Your task to perform on an android device: delete a single message in the gmail app Image 0: 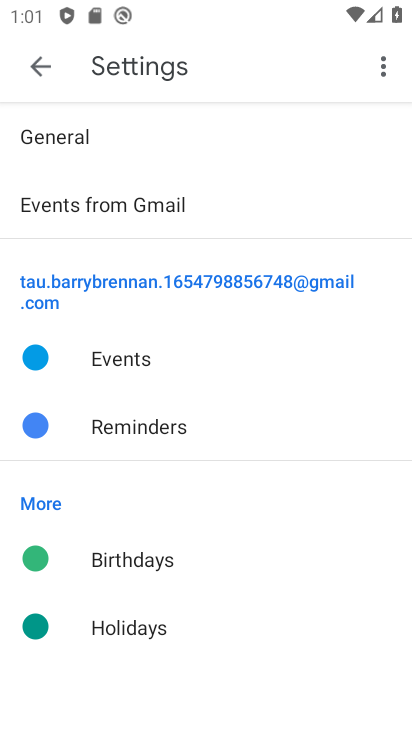
Step 0: press home button
Your task to perform on an android device: delete a single message in the gmail app Image 1: 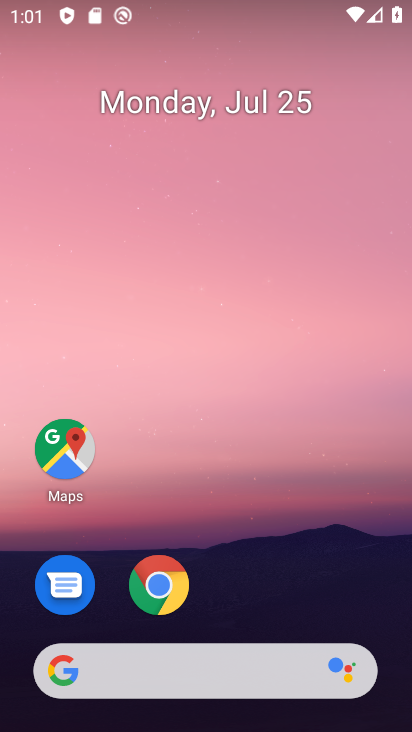
Step 1: drag from (246, 652) to (235, 158)
Your task to perform on an android device: delete a single message in the gmail app Image 2: 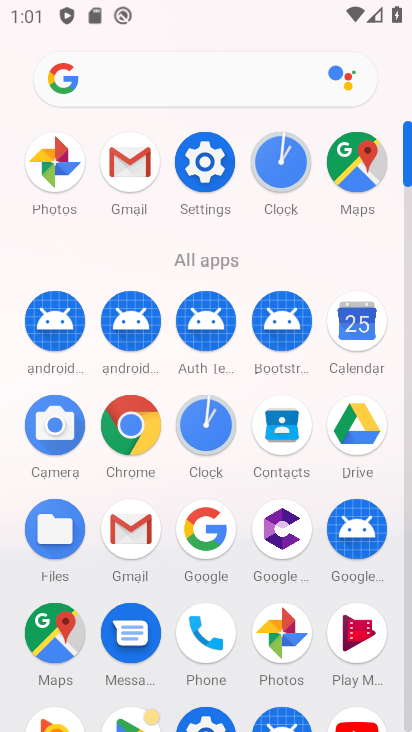
Step 2: click (143, 522)
Your task to perform on an android device: delete a single message in the gmail app Image 3: 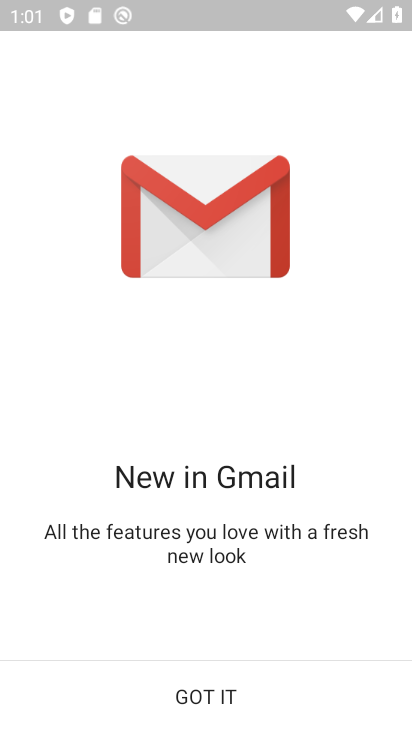
Step 3: click (234, 690)
Your task to perform on an android device: delete a single message in the gmail app Image 4: 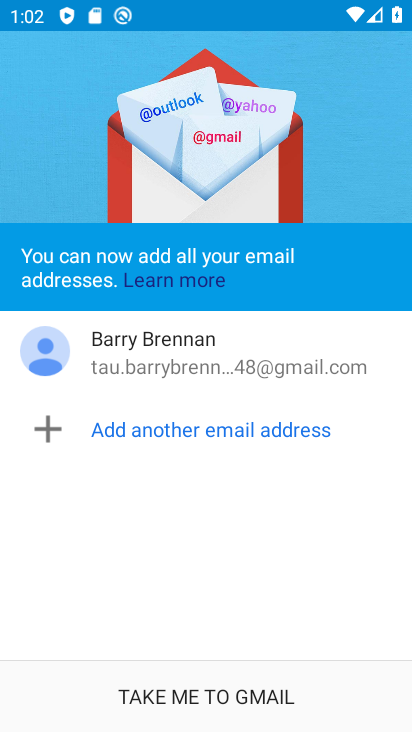
Step 4: click (234, 690)
Your task to perform on an android device: delete a single message in the gmail app Image 5: 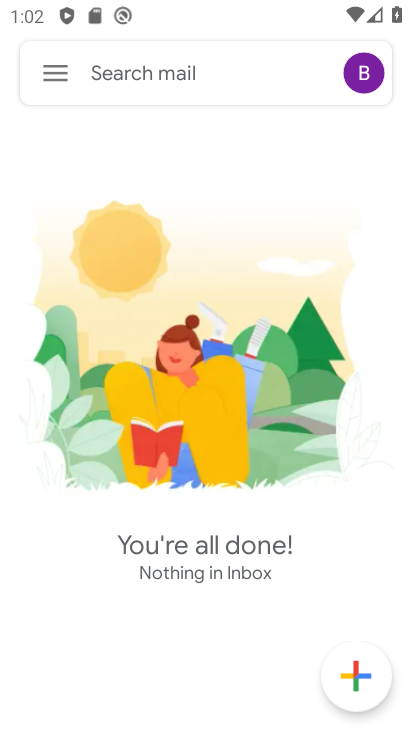
Step 5: click (65, 71)
Your task to perform on an android device: delete a single message in the gmail app Image 6: 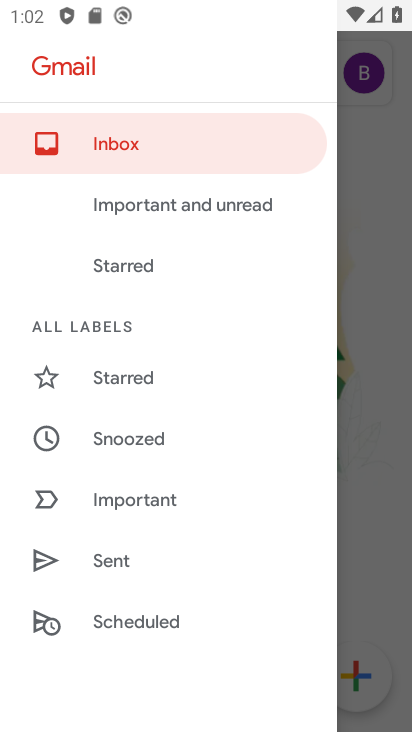
Step 6: drag from (145, 312) to (140, 116)
Your task to perform on an android device: delete a single message in the gmail app Image 7: 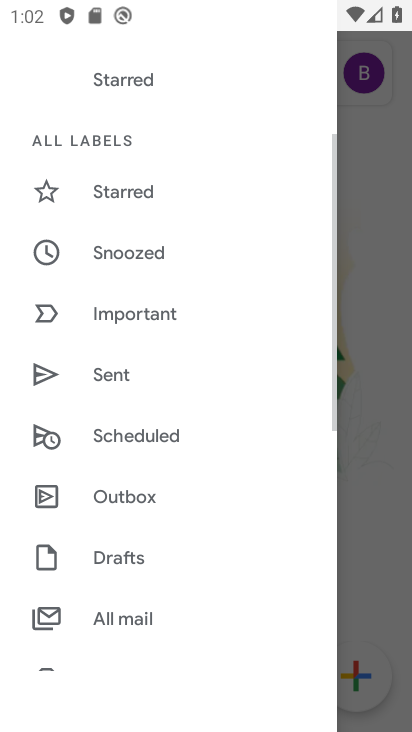
Step 7: click (117, 607)
Your task to perform on an android device: delete a single message in the gmail app Image 8: 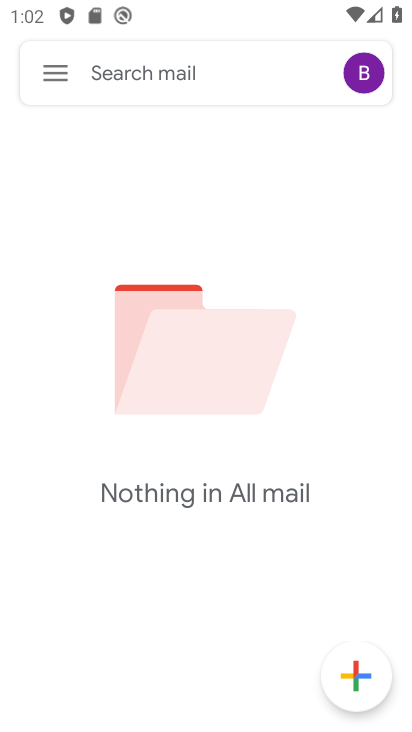
Step 8: task complete